Your task to perform on an android device: Turn off the flashlight Image 0: 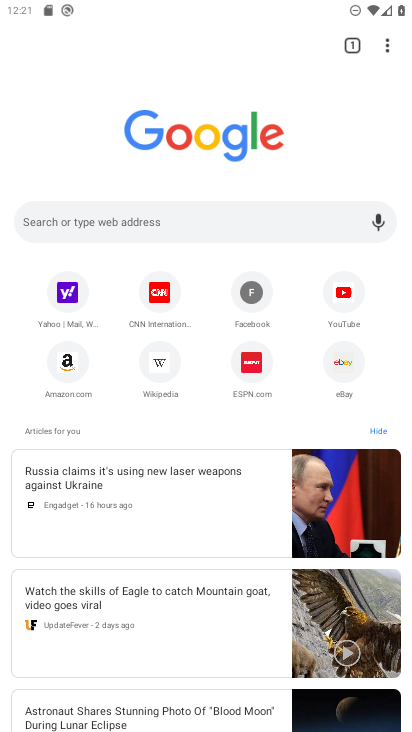
Step 0: press home button
Your task to perform on an android device: Turn off the flashlight Image 1: 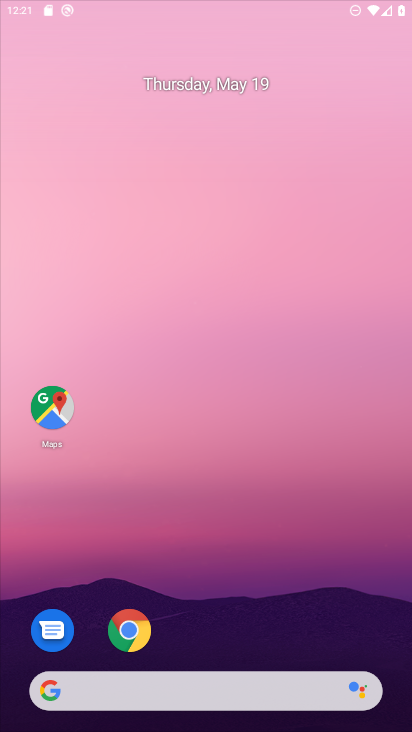
Step 1: drag from (165, 585) to (244, 63)
Your task to perform on an android device: Turn off the flashlight Image 2: 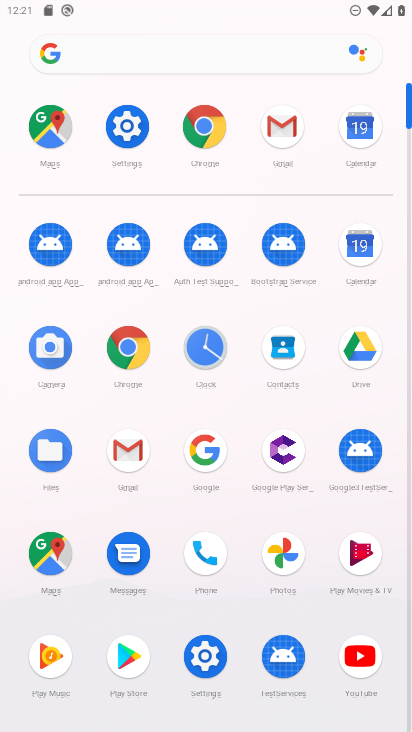
Step 2: click (129, 113)
Your task to perform on an android device: Turn off the flashlight Image 3: 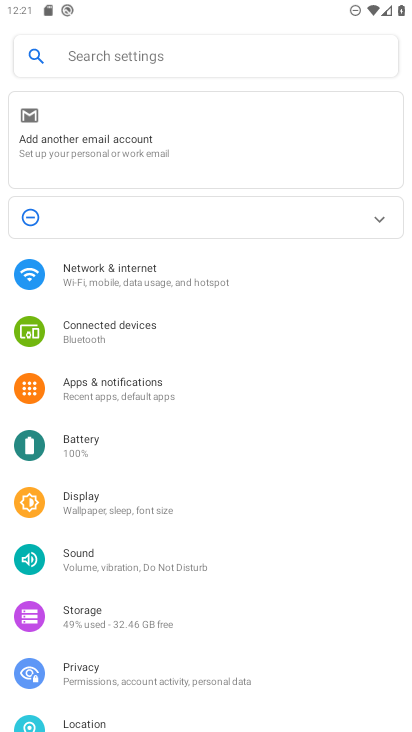
Step 3: click (123, 278)
Your task to perform on an android device: Turn off the flashlight Image 4: 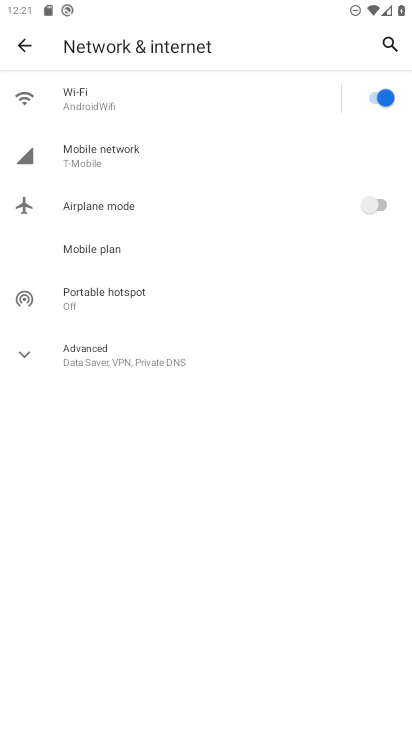
Step 4: click (30, 41)
Your task to perform on an android device: Turn off the flashlight Image 5: 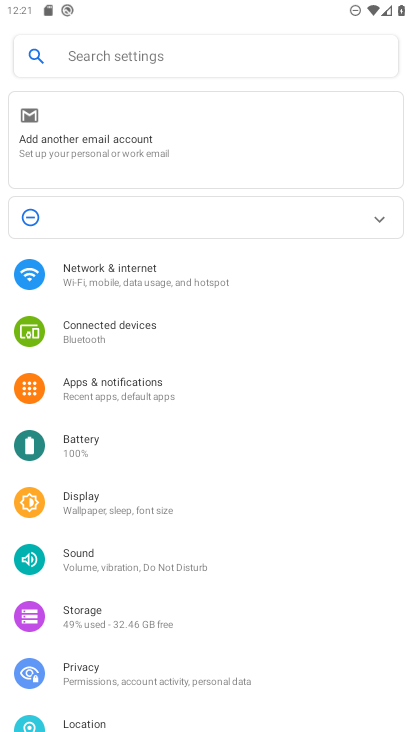
Step 5: click (127, 41)
Your task to perform on an android device: Turn off the flashlight Image 6: 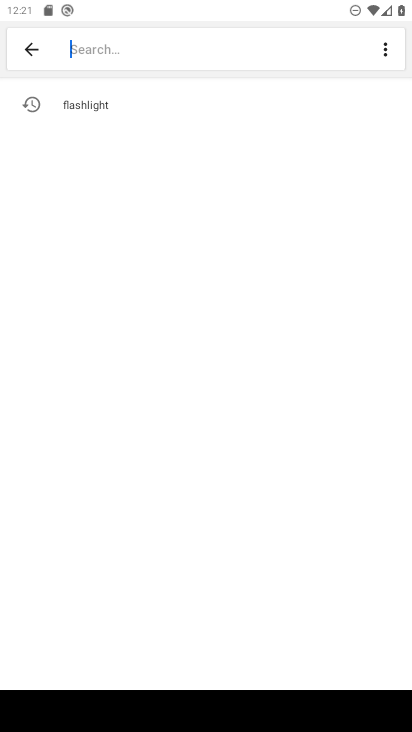
Step 6: click (122, 113)
Your task to perform on an android device: Turn off the flashlight Image 7: 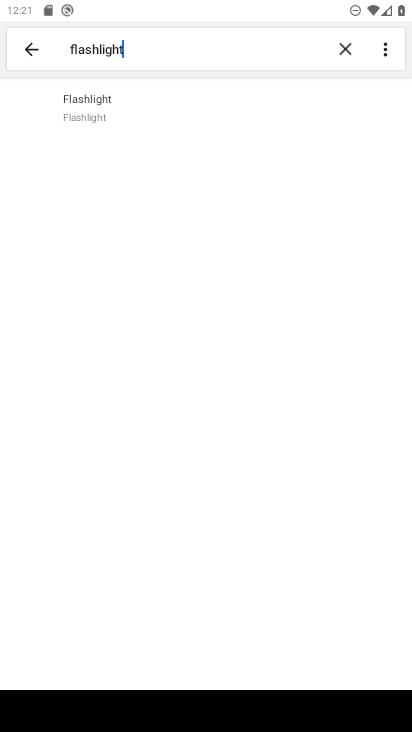
Step 7: task complete